Your task to perform on an android device: Open Yahoo.com Image 0: 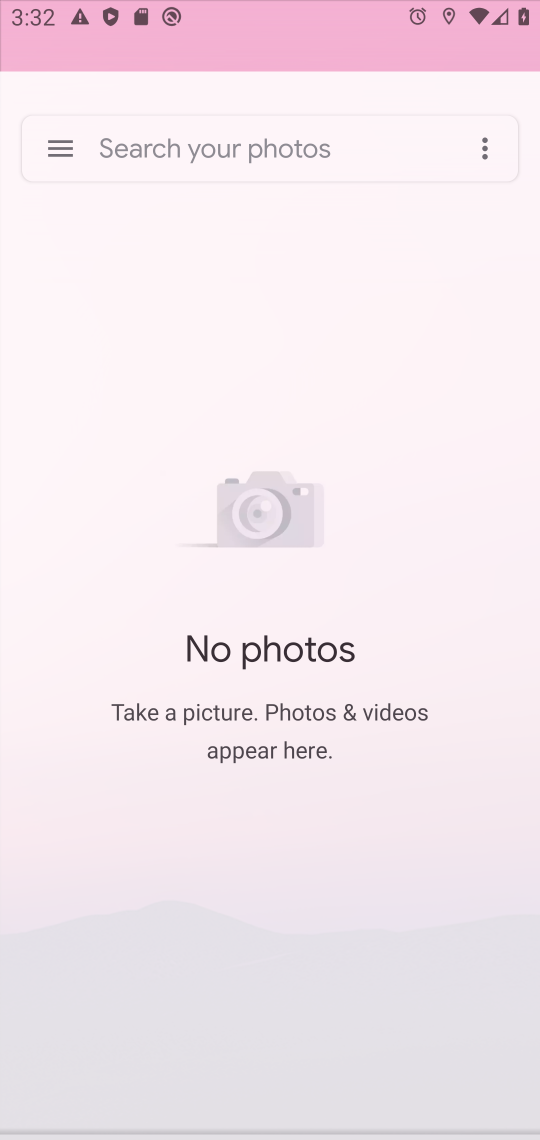
Step 0: press home button
Your task to perform on an android device: Open Yahoo.com Image 1: 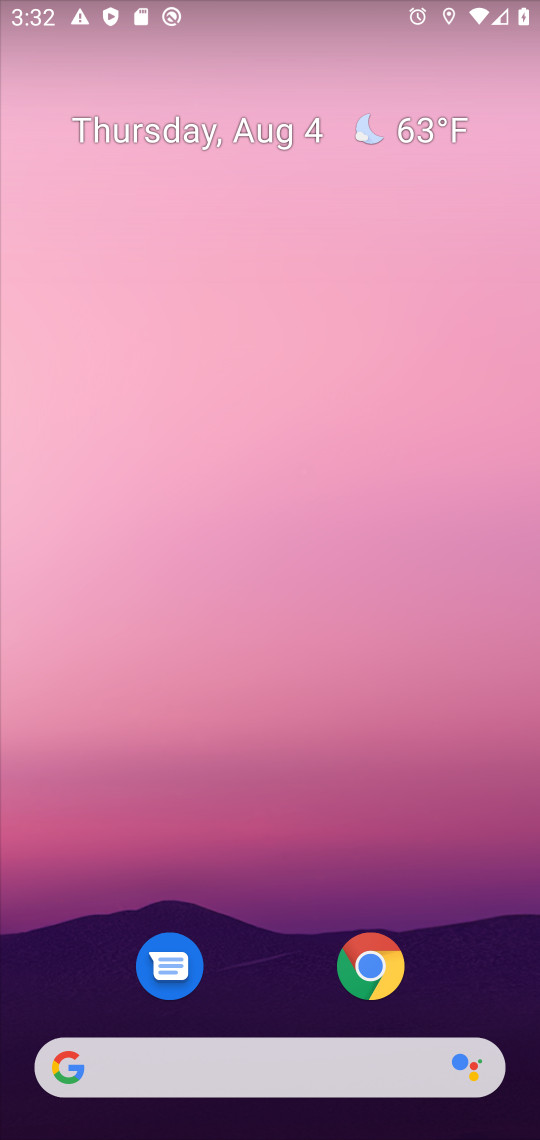
Step 1: click (67, 1070)
Your task to perform on an android device: Open Yahoo.com Image 2: 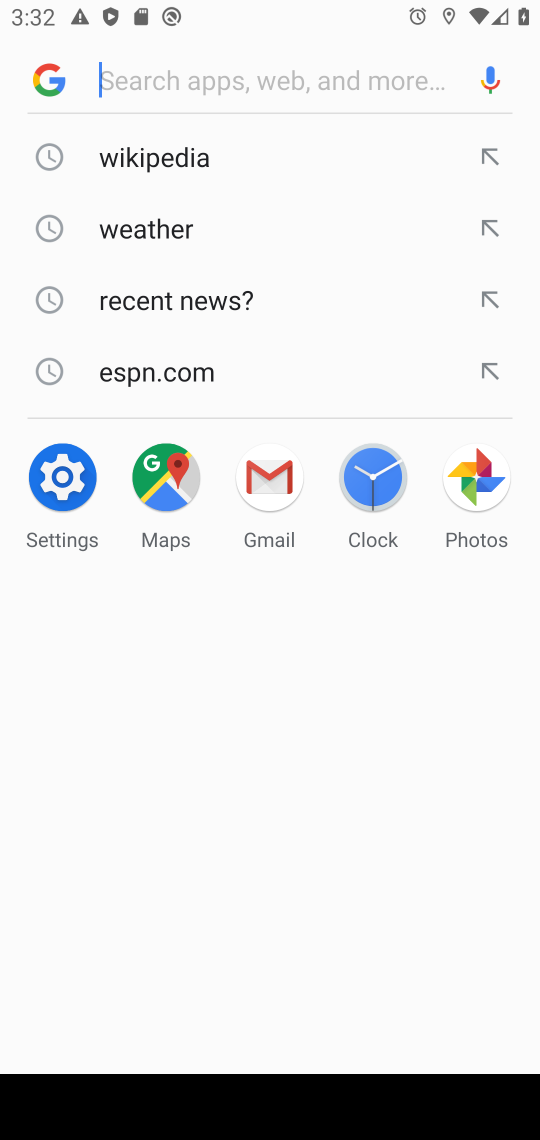
Step 2: type "Yahoo.com"
Your task to perform on an android device: Open Yahoo.com Image 3: 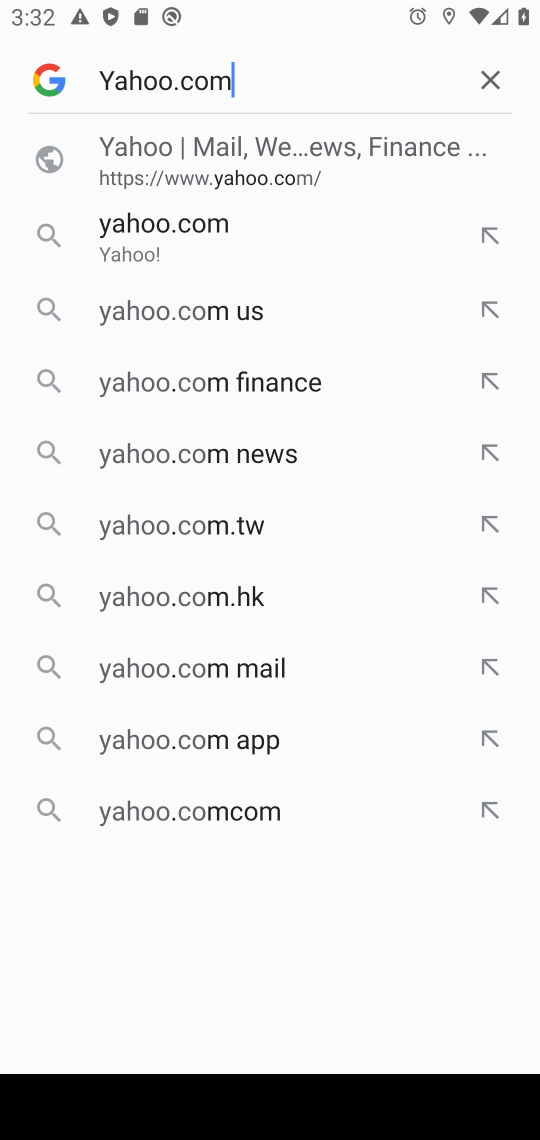
Step 3: press enter
Your task to perform on an android device: Open Yahoo.com Image 4: 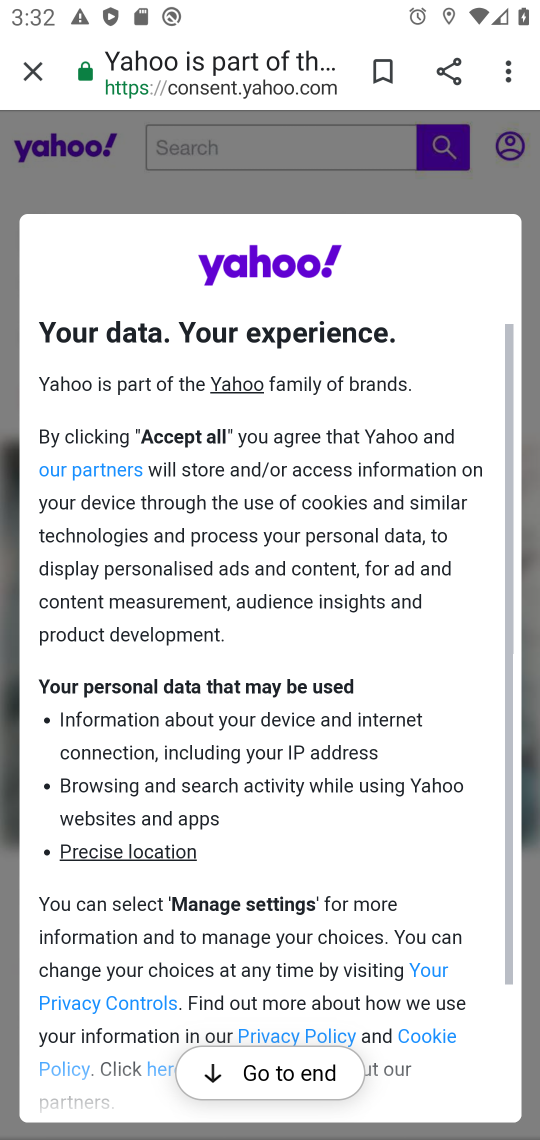
Step 4: click (253, 1074)
Your task to perform on an android device: Open Yahoo.com Image 5: 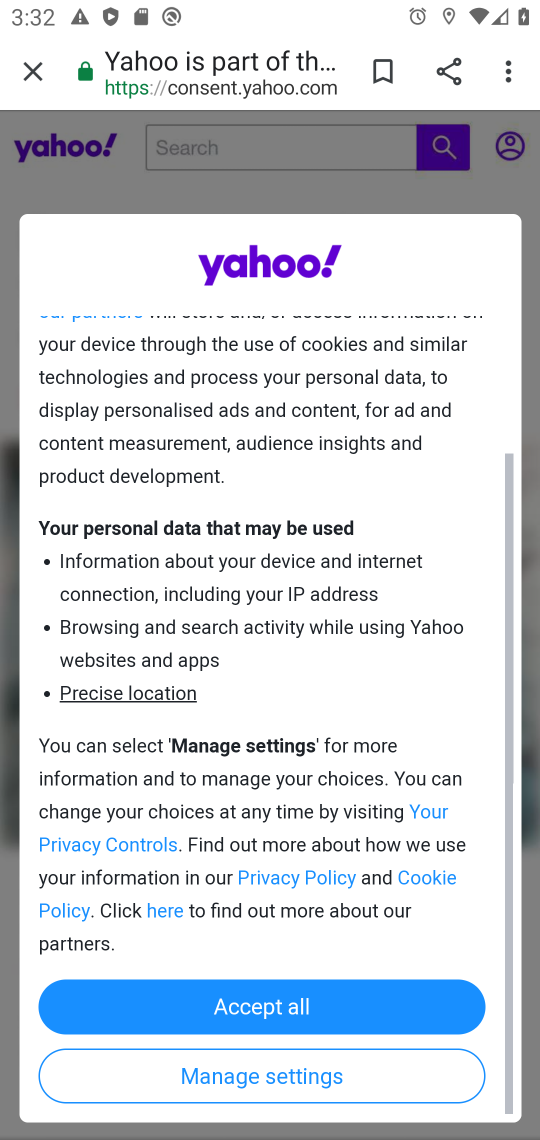
Step 5: click (204, 1002)
Your task to perform on an android device: Open Yahoo.com Image 6: 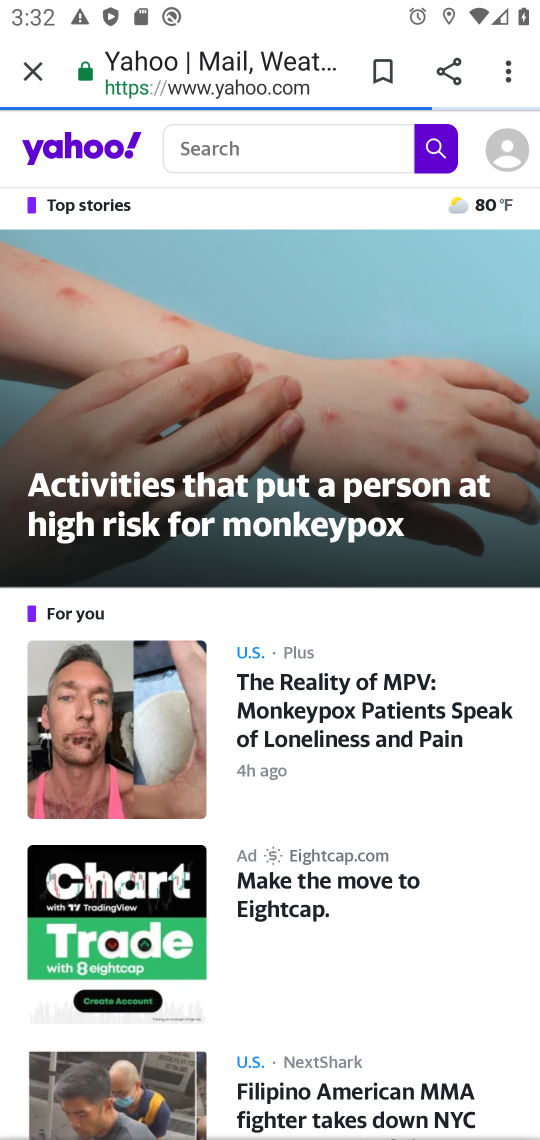
Step 6: task complete